Your task to perform on an android device: open wifi settings Image 0: 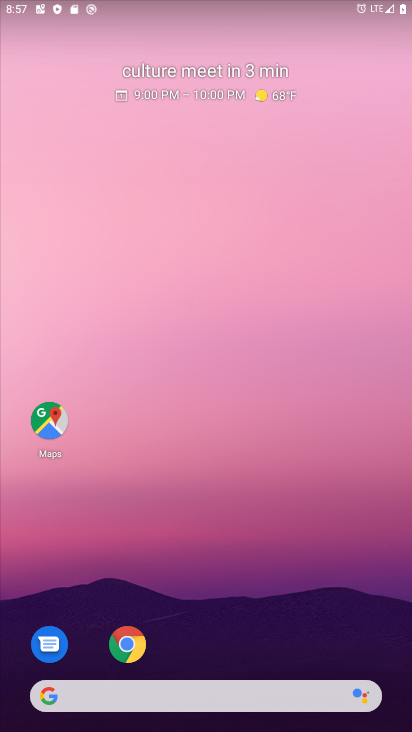
Step 0: drag from (218, 336) to (194, 155)
Your task to perform on an android device: open wifi settings Image 1: 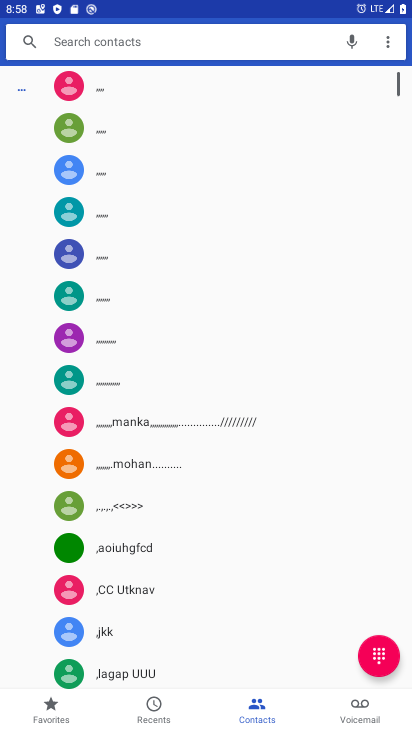
Step 1: press home button
Your task to perform on an android device: open wifi settings Image 2: 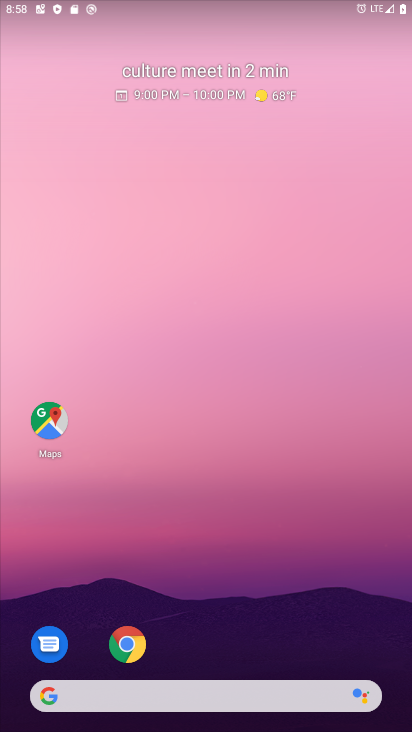
Step 2: drag from (204, 694) to (233, 209)
Your task to perform on an android device: open wifi settings Image 3: 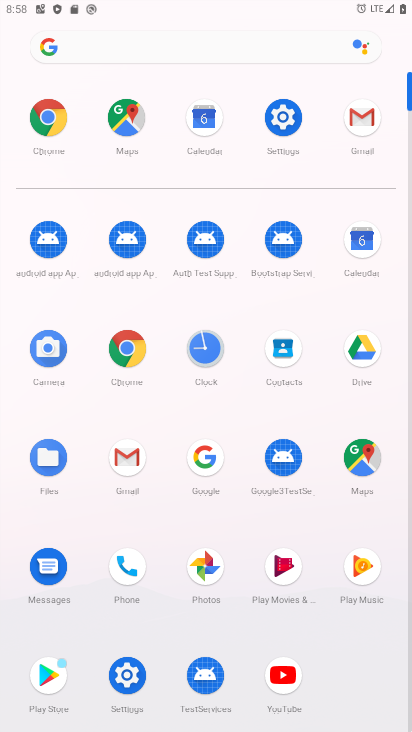
Step 3: click (268, 117)
Your task to perform on an android device: open wifi settings Image 4: 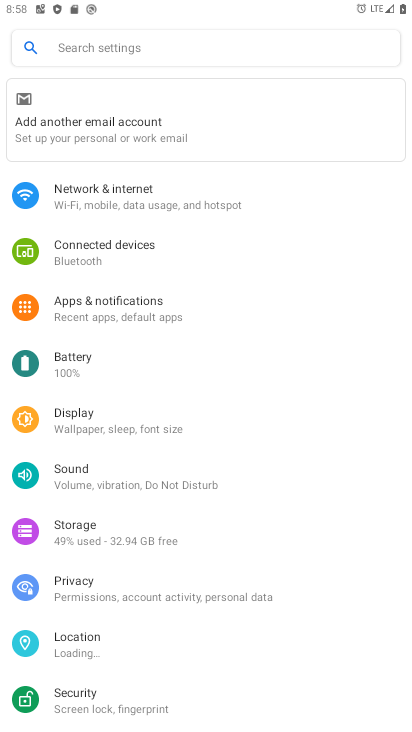
Step 4: click (97, 212)
Your task to perform on an android device: open wifi settings Image 5: 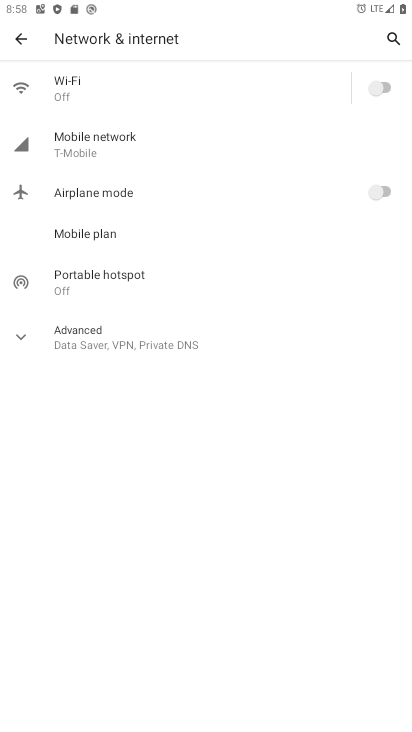
Step 5: click (110, 80)
Your task to perform on an android device: open wifi settings Image 6: 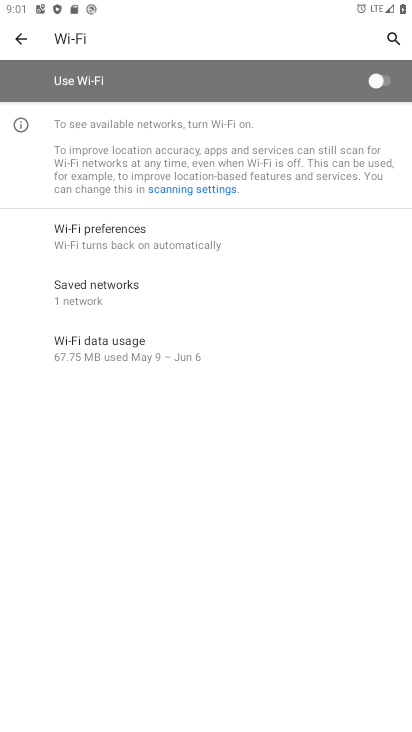
Step 6: task complete